Your task to perform on an android device: open sync settings in chrome Image 0: 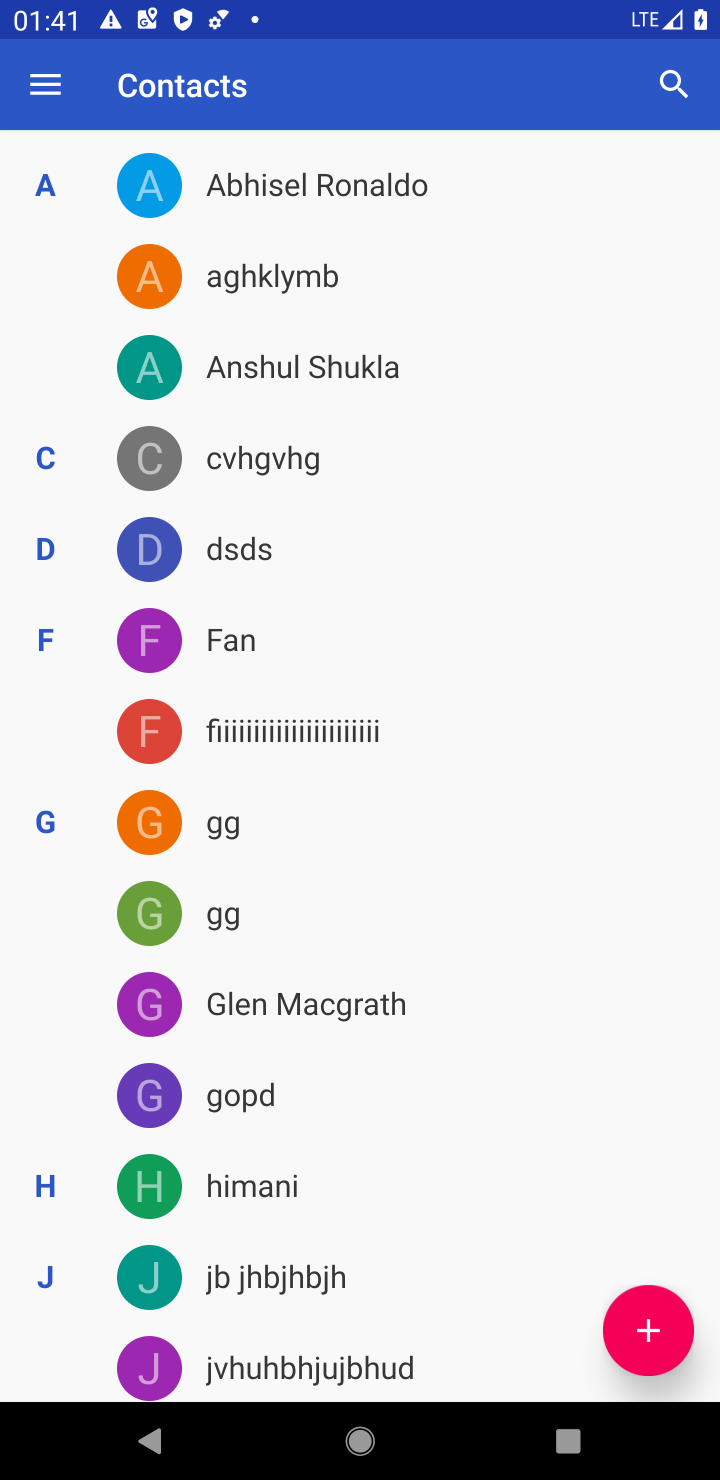
Step 0: click (349, 1430)
Your task to perform on an android device: open sync settings in chrome Image 1: 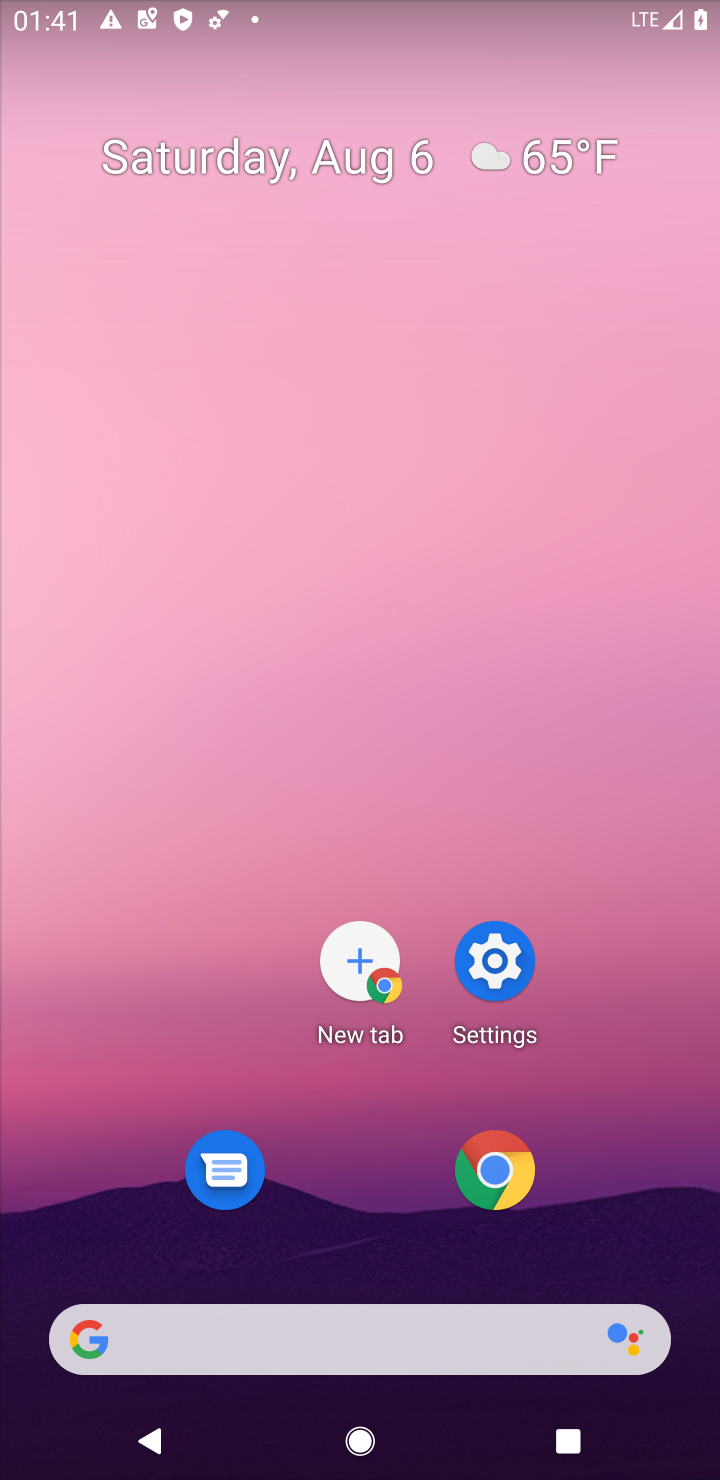
Step 1: click (510, 1154)
Your task to perform on an android device: open sync settings in chrome Image 2: 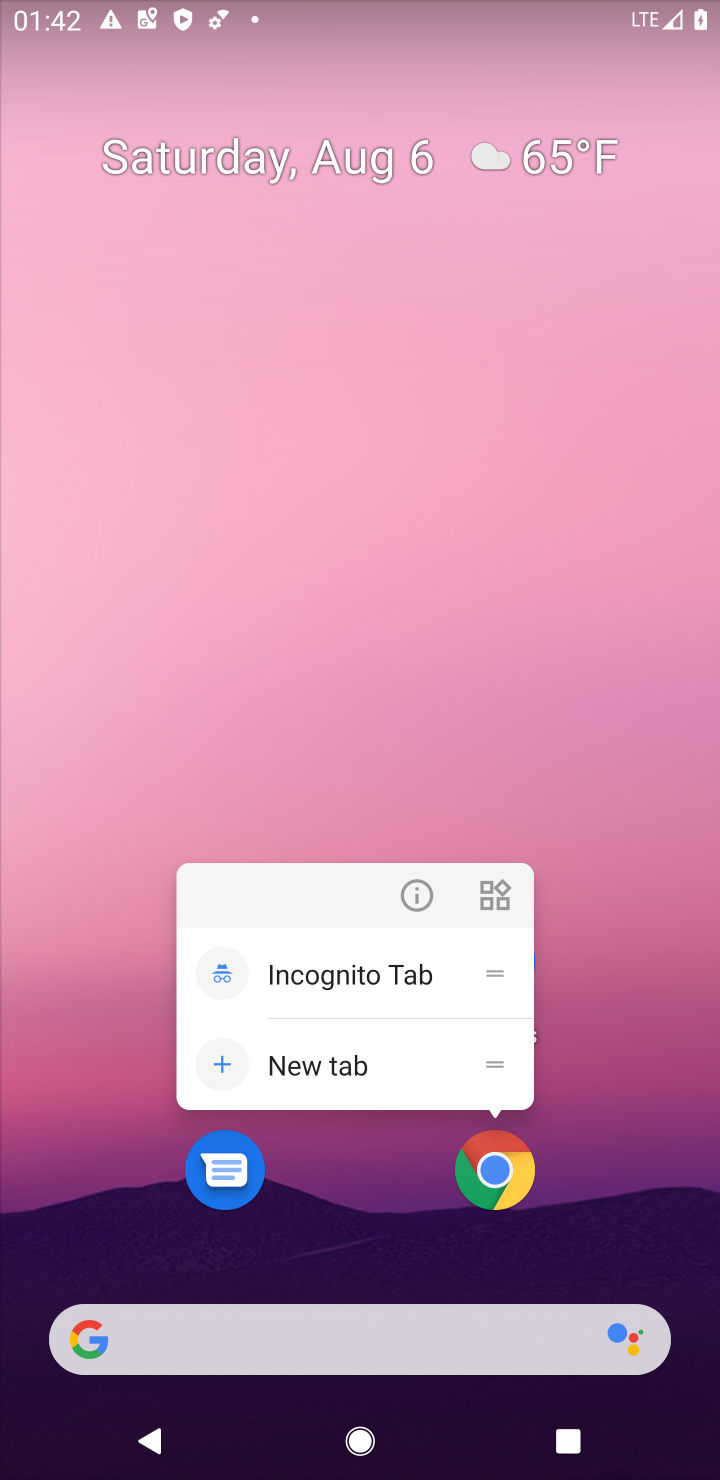
Step 2: click (545, 636)
Your task to perform on an android device: open sync settings in chrome Image 3: 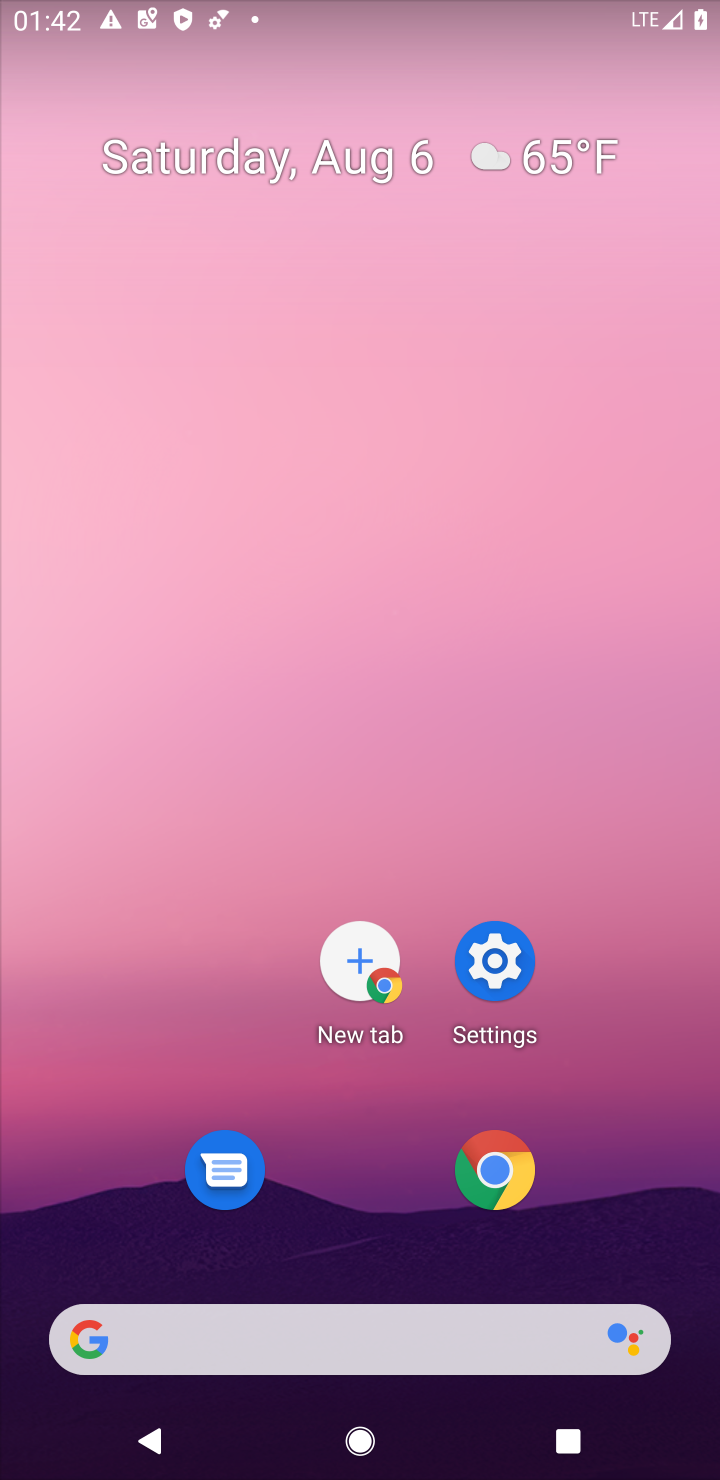
Step 3: click (498, 1143)
Your task to perform on an android device: open sync settings in chrome Image 4: 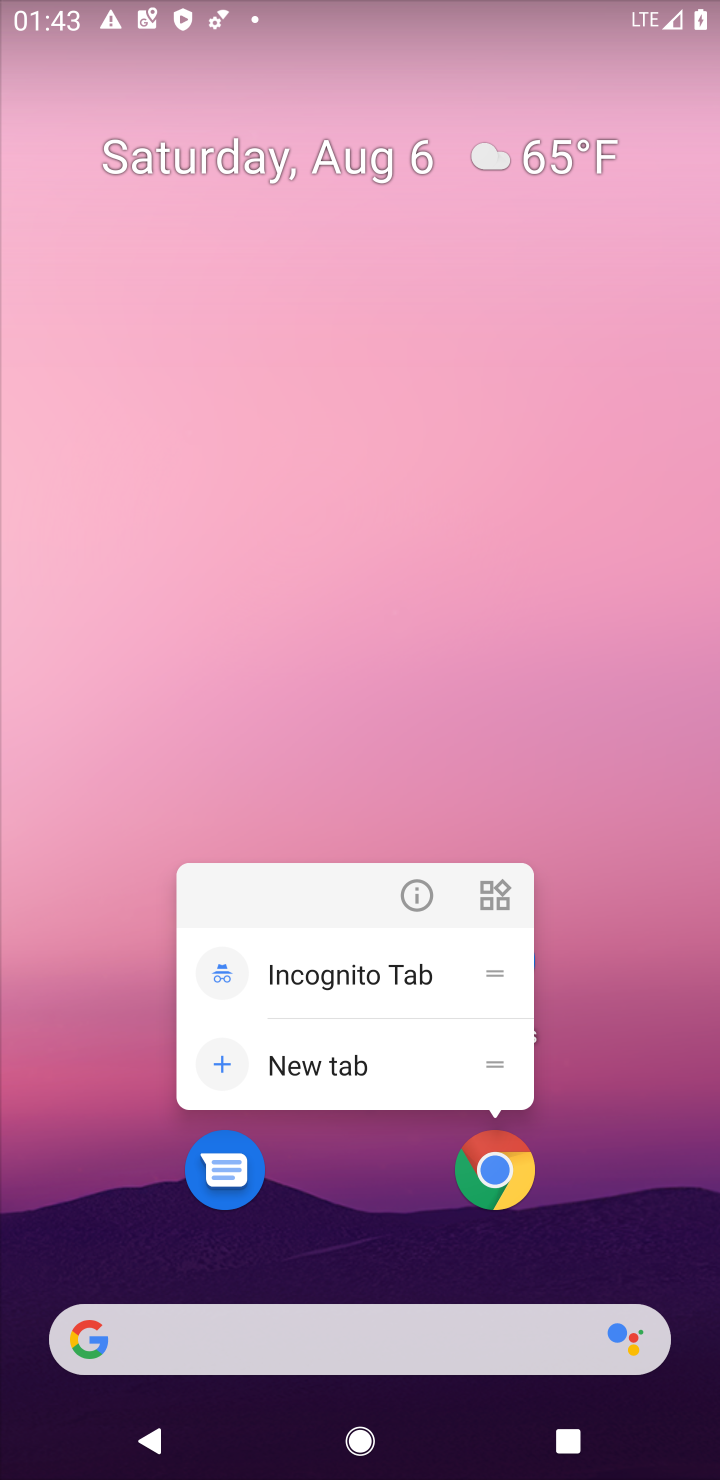
Step 4: click (645, 960)
Your task to perform on an android device: open sync settings in chrome Image 5: 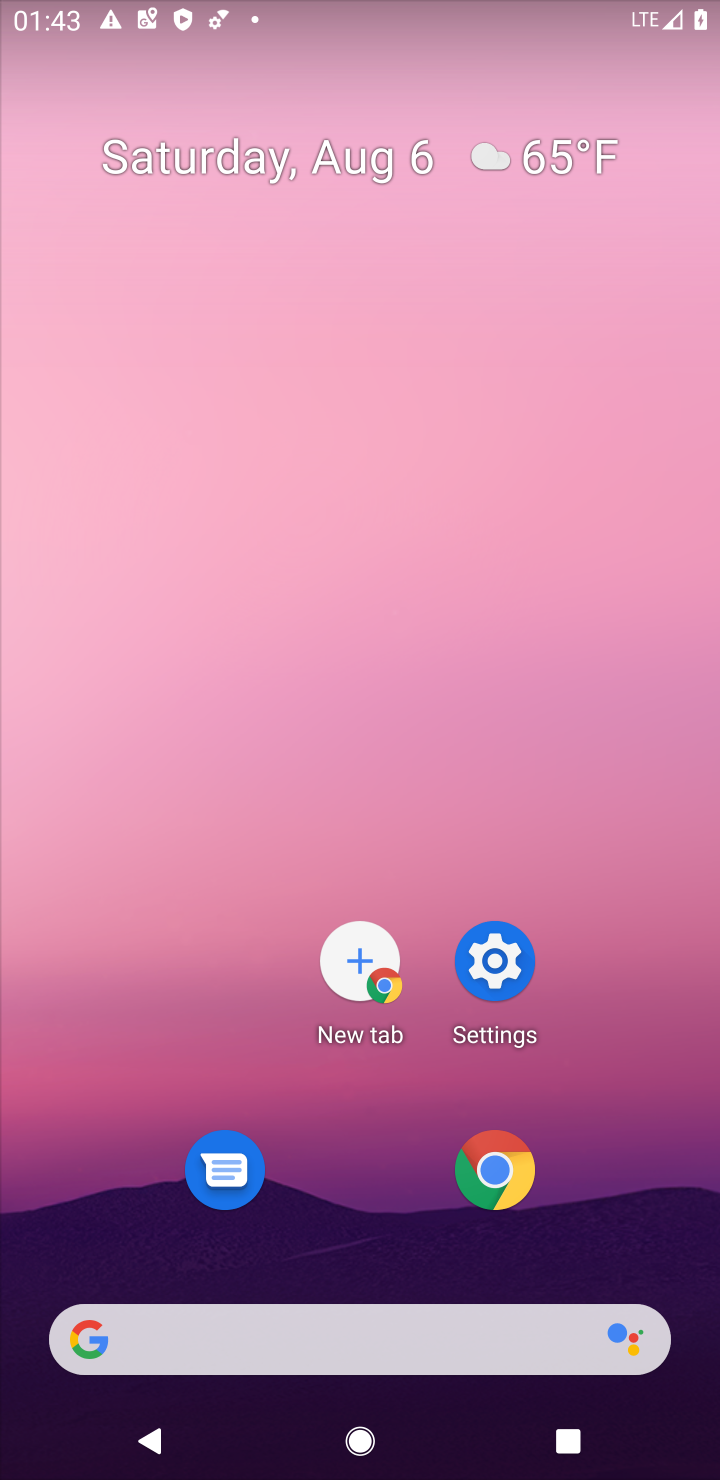
Step 5: click (513, 1157)
Your task to perform on an android device: open sync settings in chrome Image 6: 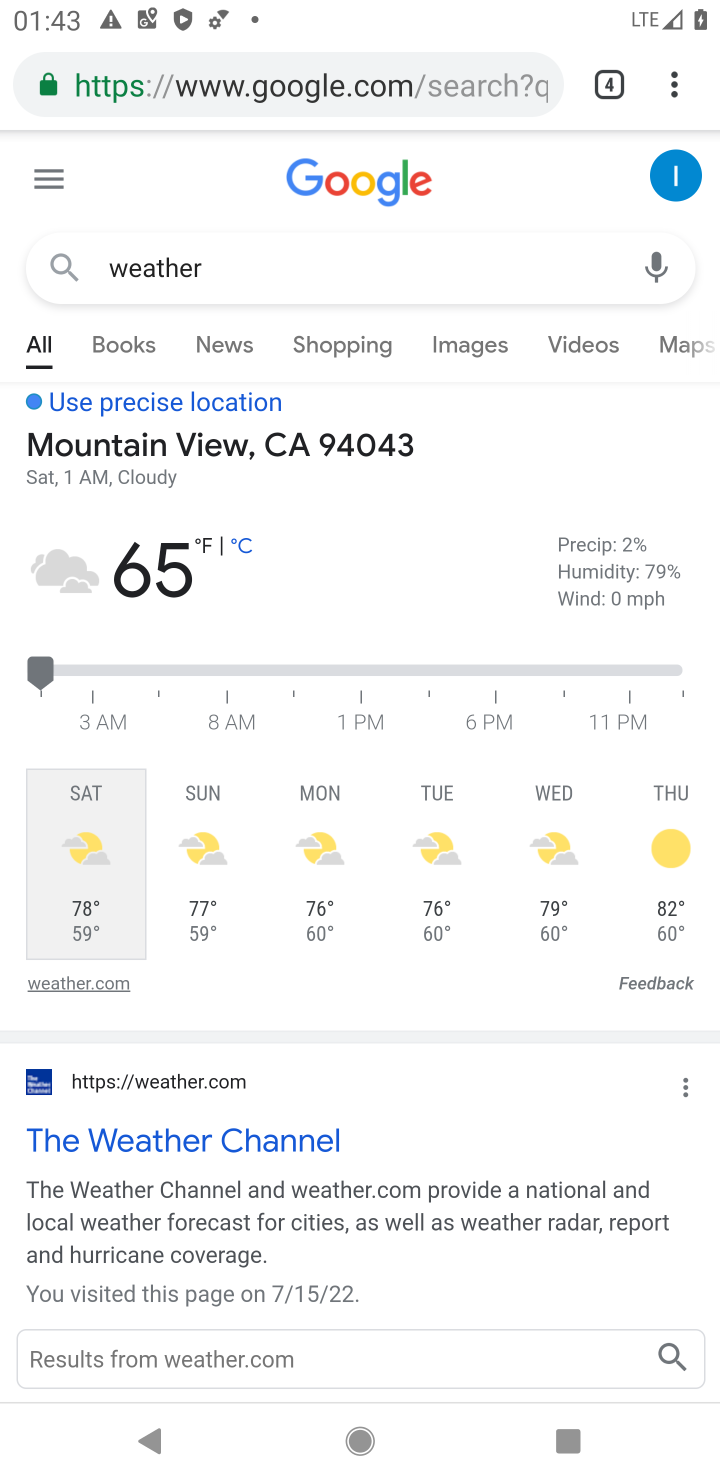
Step 6: click (669, 95)
Your task to perform on an android device: open sync settings in chrome Image 7: 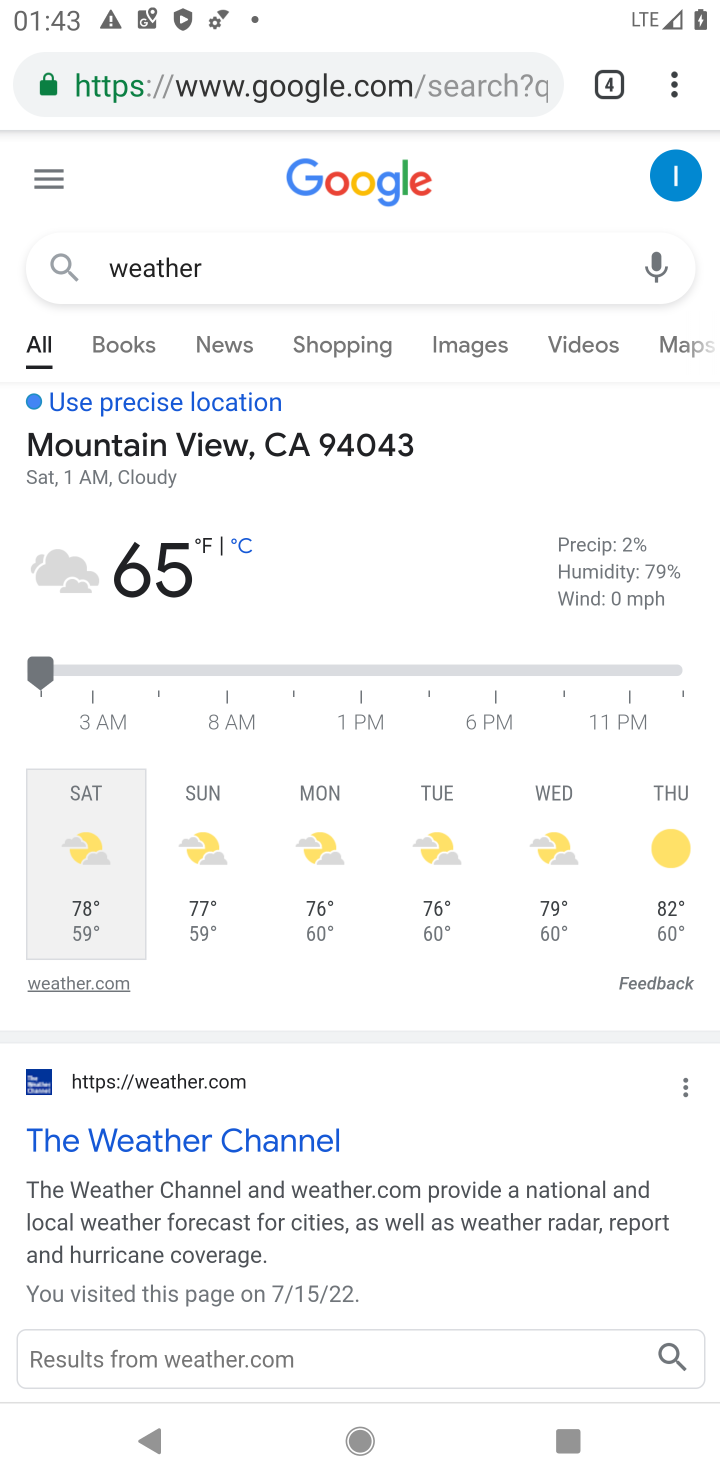
Step 7: click (667, 90)
Your task to perform on an android device: open sync settings in chrome Image 8: 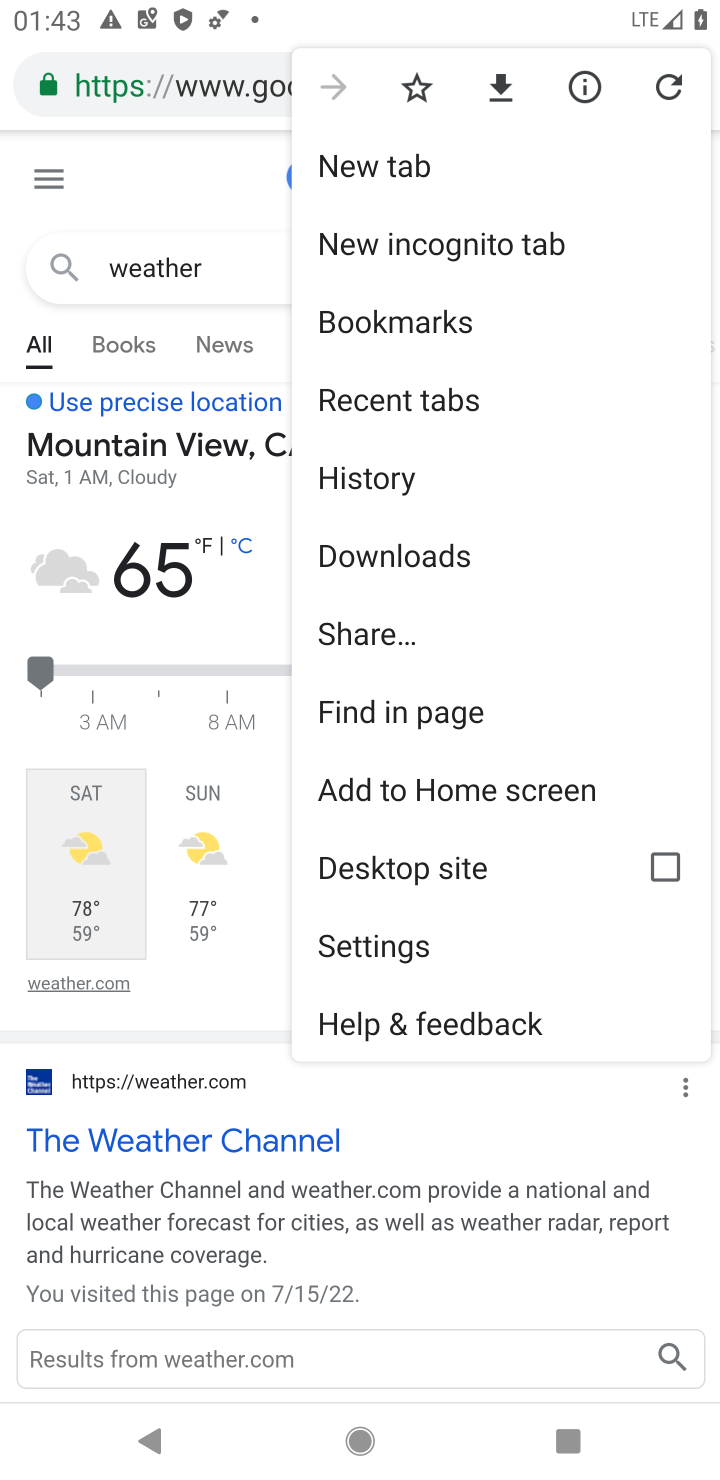
Step 8: task complete